Your task to perform on an android device: toggle translation in the chrome app Image 0: 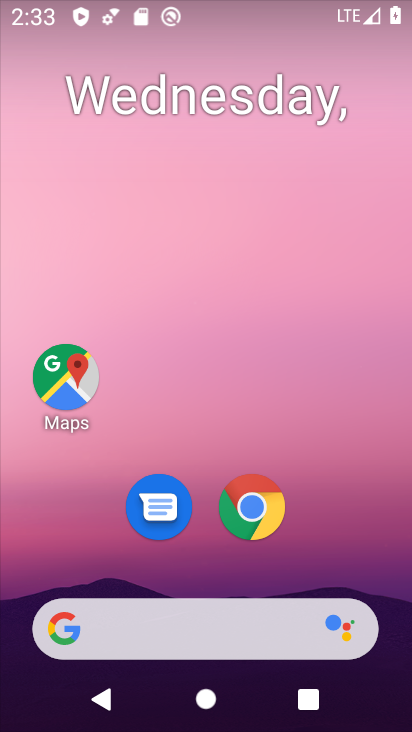
Step 0: click (257, 512)
Your task to perform on an android device: toggle translation in the chrome app Image 1: 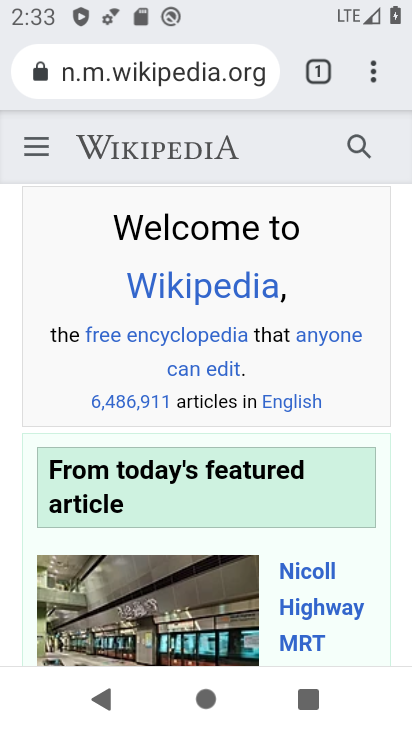
Step 1: click (374, 71)
Your task to perform on an android device: toggle translation in the chrome app Image 2: 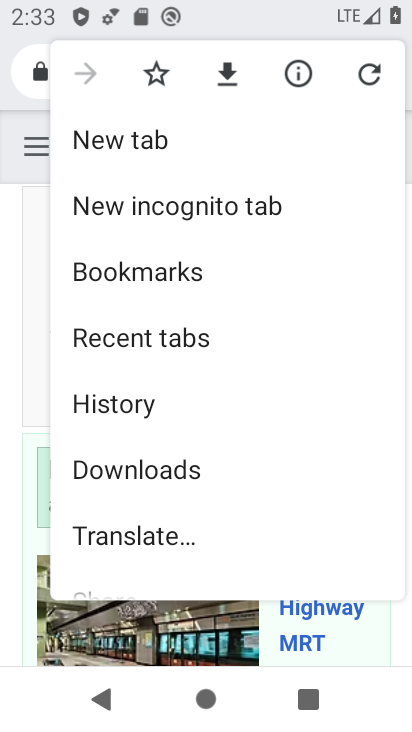
Step 2: drag from (243, 469) to (249, 132)
Your task to perform on an android device: toggle translation in the chrome app Image 3: 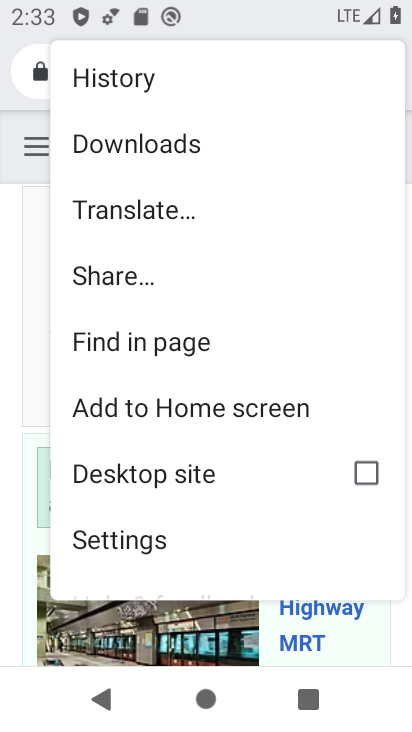
Step 3: click (171, 548)
Your task to perform on an android device: toggle translation in the chrome app Image 4: 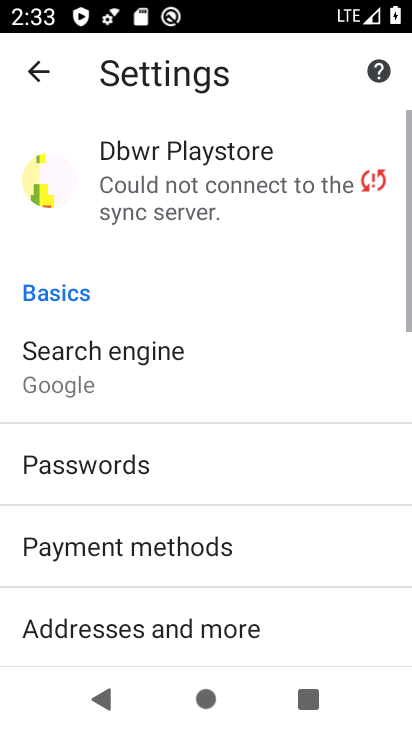
Step 4: drag from (203, 484) to (198, 107)
Your task to perform on an android device: toggle translation in the chrome app Image 5: 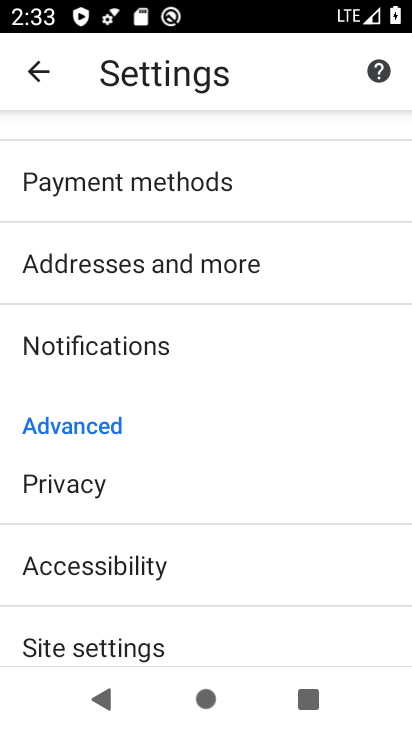
Step 5: drag from (197, 611) to (225, 175)
Your task to perform on an android device: toggle translation in the chrome app Image 6: 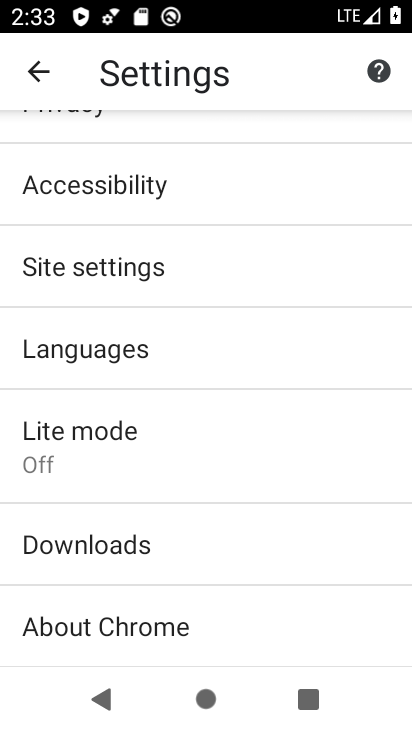
Step 6: click (129, 349)
Your task to perform on an android device: toggle translation in the chrome app Image 7: 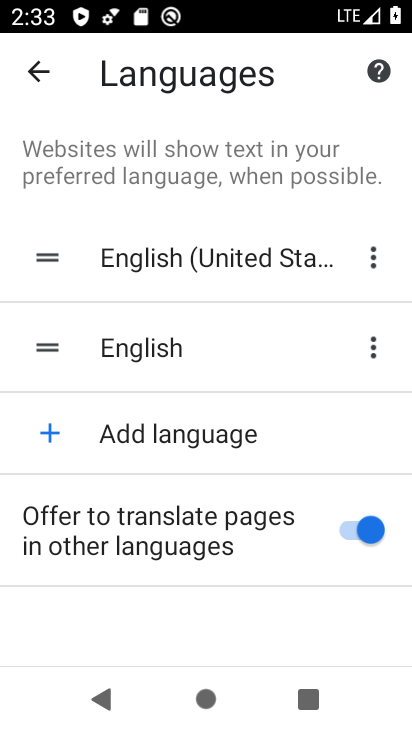
Step 7: click (349, 529)
Your task to perform on an android device: toggle translation in the chrome app Image 8: 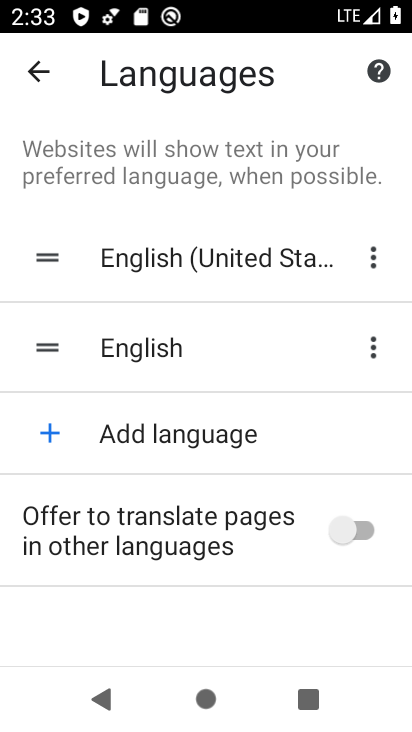
Step 8: task complete